Your task to perform on an android device: change the clock display to digital Image 0: 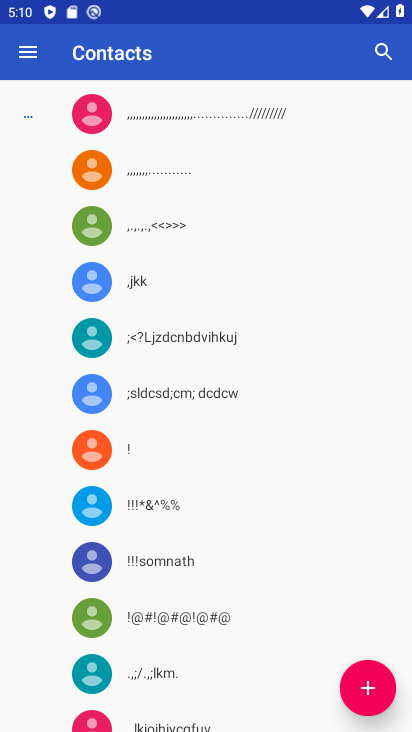
Step 0: press home button
Your task to perform on an android device: change the clock display to digital Image 1: 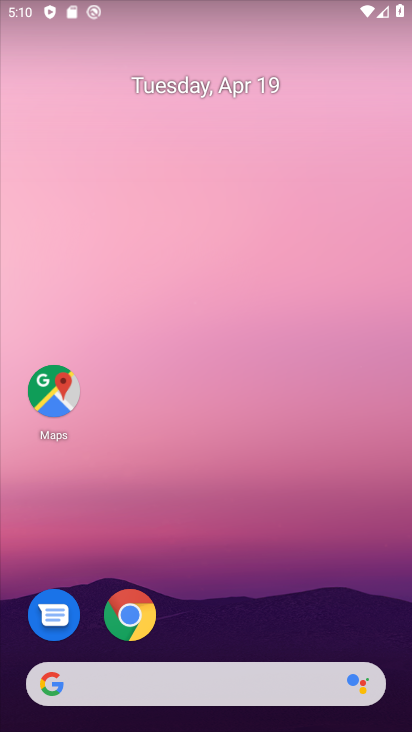
Step 1: drag from (206, 722) to (212, 70)
Your task to perform on an android device: change the clock display to digital Image 2: 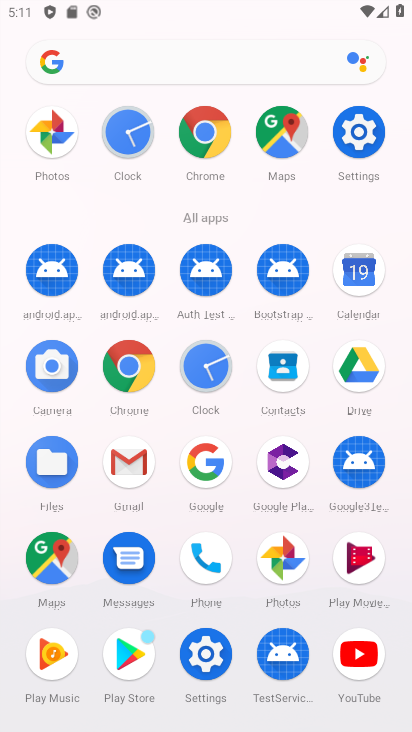
Step 2: click (206, 366)
Your task to perform on an android device: change the clock display to digital Image 3: 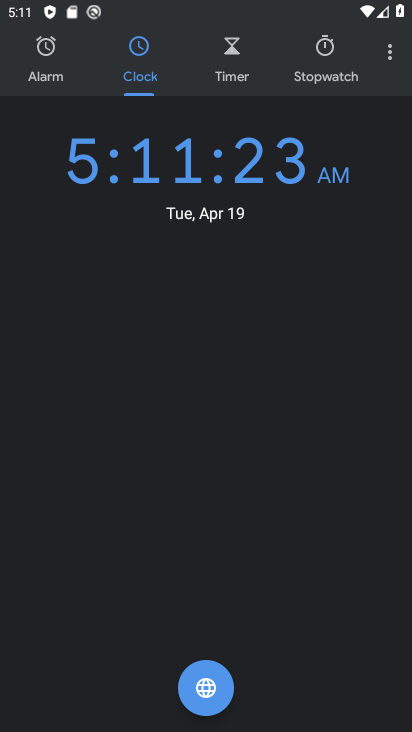
Step 3: click (390, 53)
Your task to perform on an android device: change the clock display to digital Image 4: 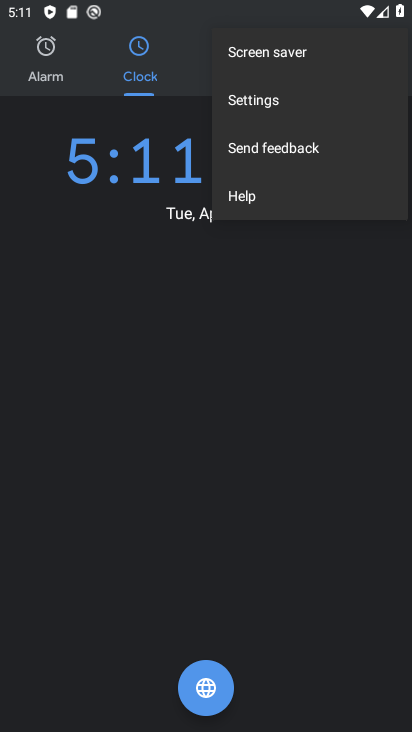
Step 4: click (245, 99)
Your task to perform on an android device: change the clock display to digital Image 5: 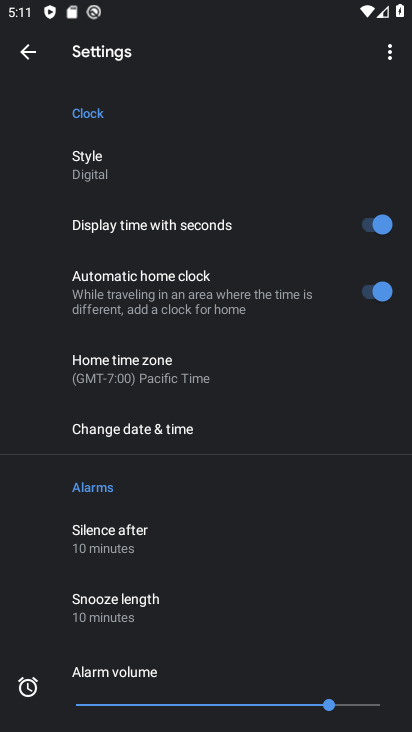
Step 5: click (98, 167)
Your task to perform on an android device: change the clock display to digital Image 6: 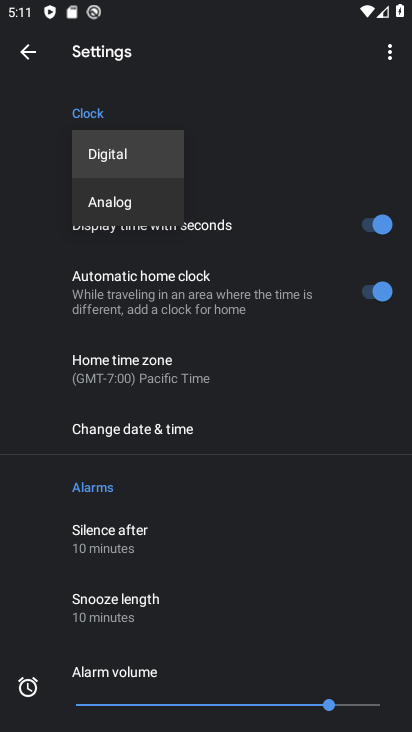
Step 6: click (111, 155)
Your task to perform on an android device: change the clock display to digital Image 7: 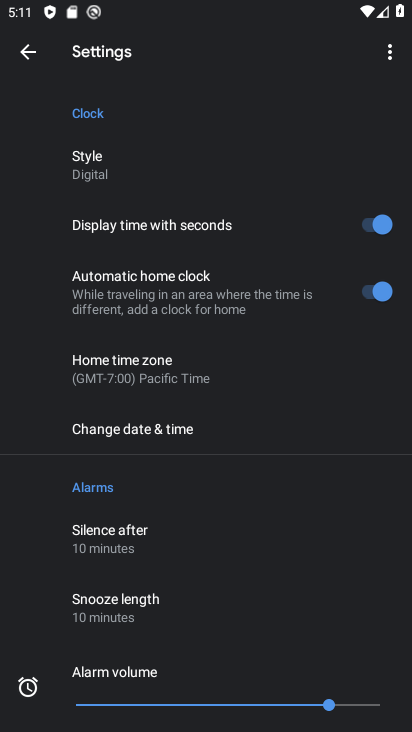
Step 7: task complete